Your task to perform on an android device: Go to calendar. Show me events next week Image 0: 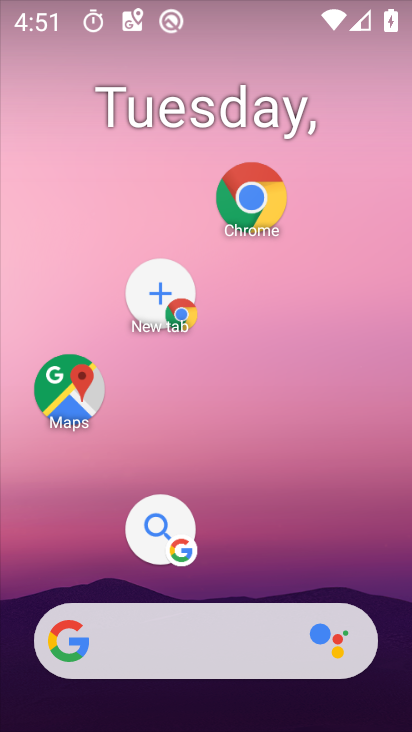
Step 0: drag from (212, 604) to (308, 117)
Your task to perform on an android device: Go to calendar. Show me events next week Image 1: 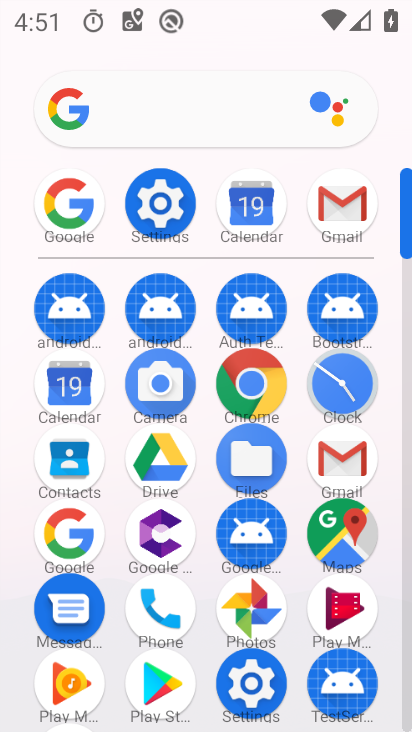
Step 1: click (251, 194)
Your task to perform on an android device: Go to calendar. Show me events next week Image 2: 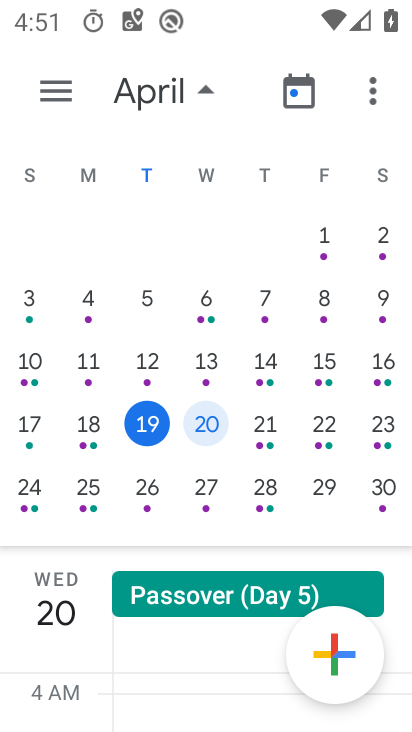
Step 2: click (81, 481)
Your task to perform on an android device: Go to calendar. Show me events next week Image 3: 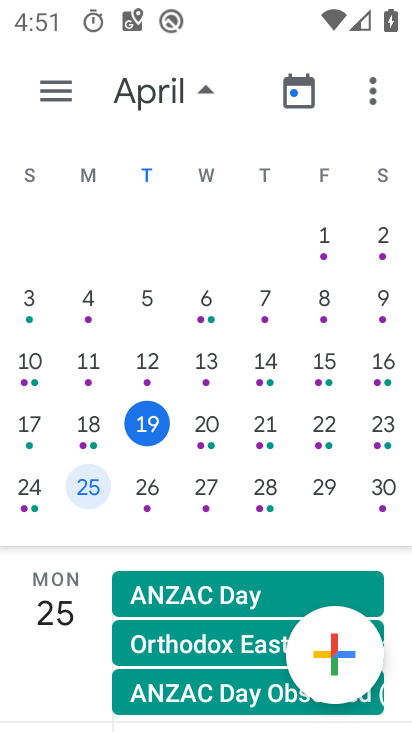
Step 3: task complete